Your task to perform on an android device: set the stopwatch Image 0: 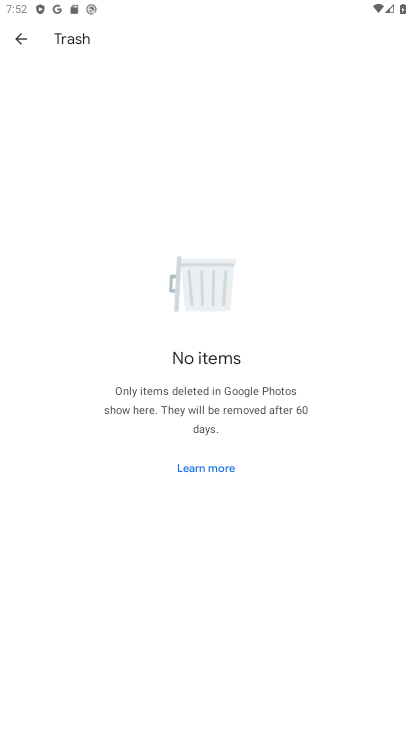
Step 0: press home button
Your task to perform on an android device: set the stopwatch Image 1: 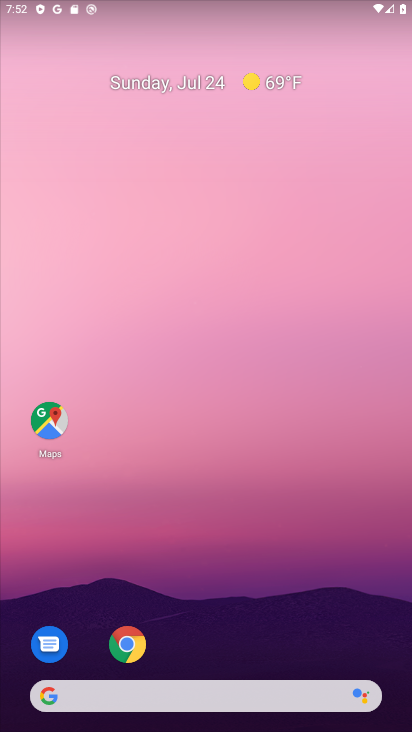
Step 1: drag from (181, 647) to (199, 258)
Your task to perform on an android device: set the stopwatch Image 2: 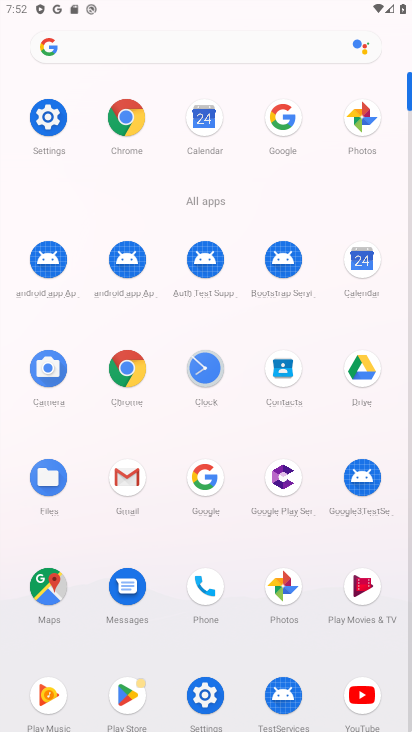
Step 2: click (190, 361)
Your task to perform on an android device: set the stopwatch Image 3: 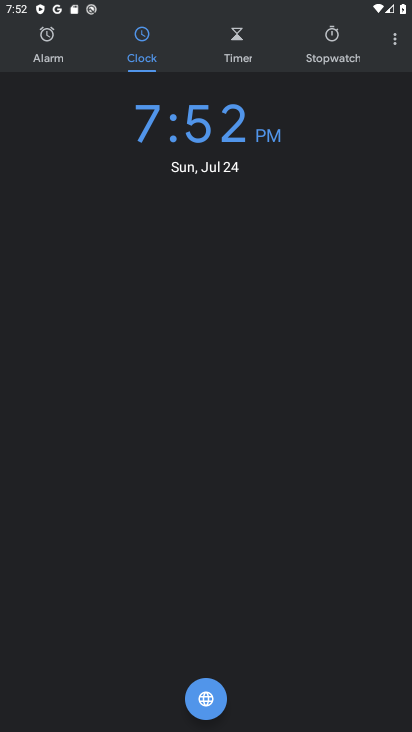
Step 3: click (323, 51)
Your task to perform on an android device: set the stopwatch Image 4: 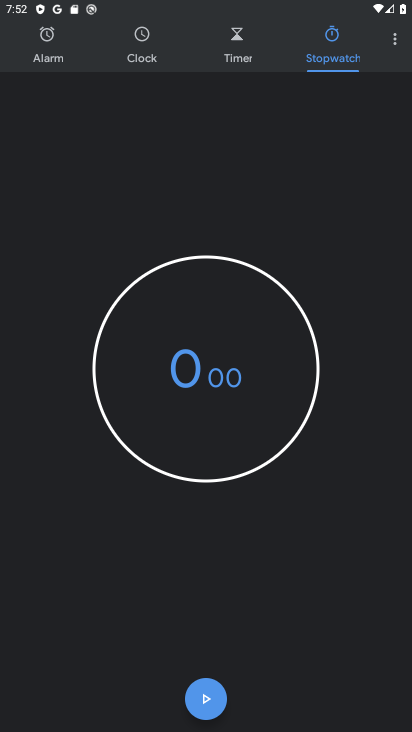
Step 4: click (182, 382)
Your task to perform on an android device: set the stopwatch Image 5: 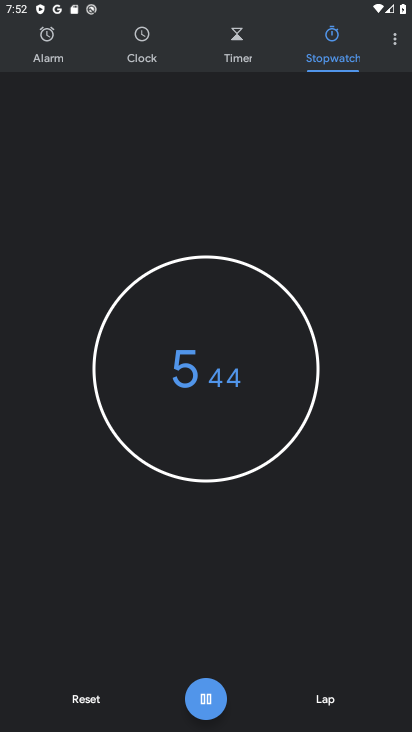
Step 5: click (189, 709)
Your task to perform on an android device: set the stopwatch Image 6: 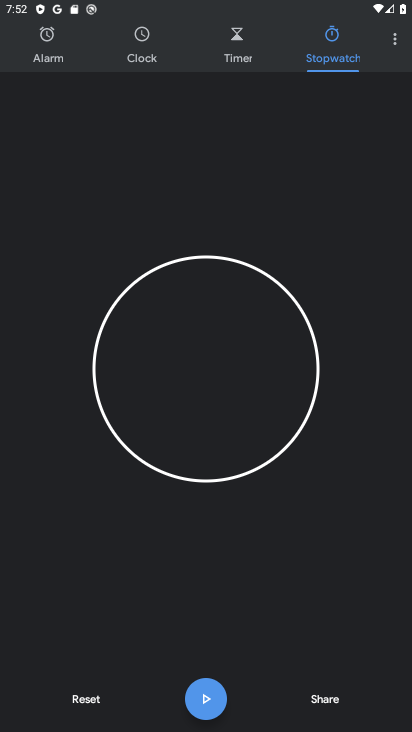
Step 6: task complete